Your task to perform on an android device: Do I have any events tomorrow? Image 0: 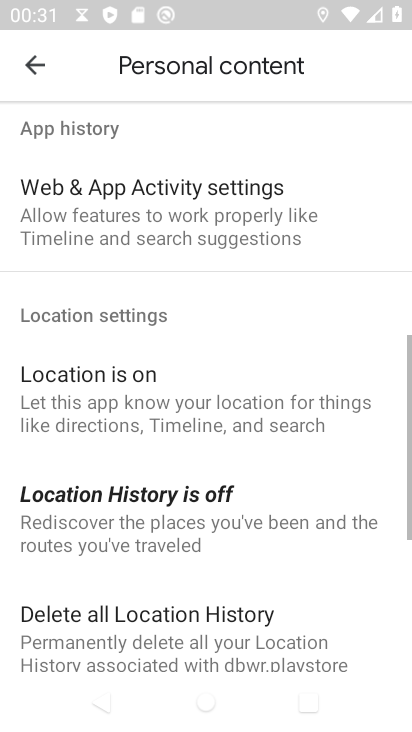
Step 0: press home button
Your task to perform on an android device: Do I have any events tomorrow? Image 1: 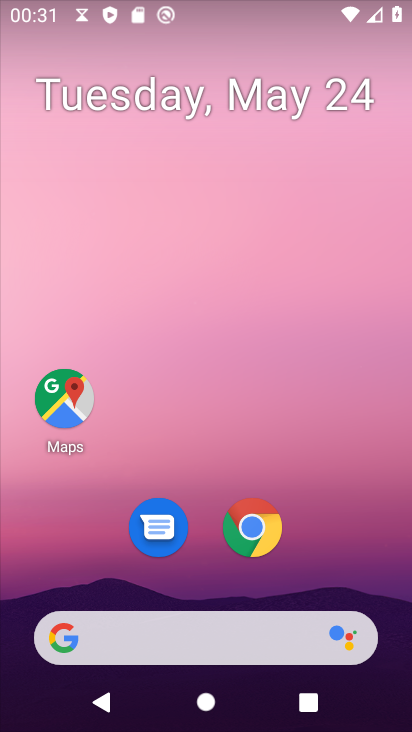
Step 1: drag from (182, 641) to (286, 78)
Your task to perform on an android device: Do I have any events tomorrow? Image 2: 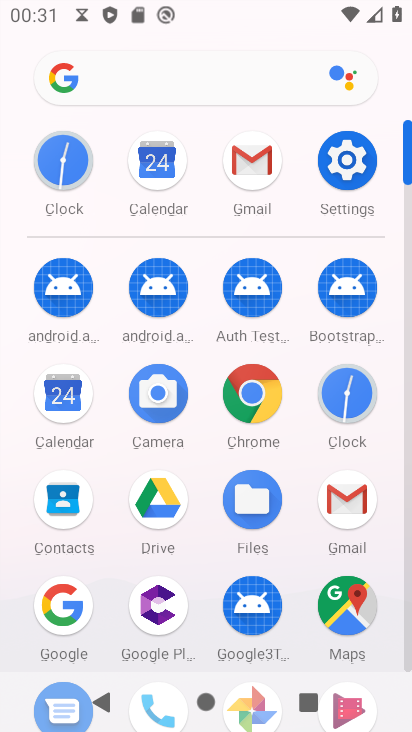
Step 2: click (64, 401)
Your task to perform on an android device: Do I have any events tomorrow? Image 3: 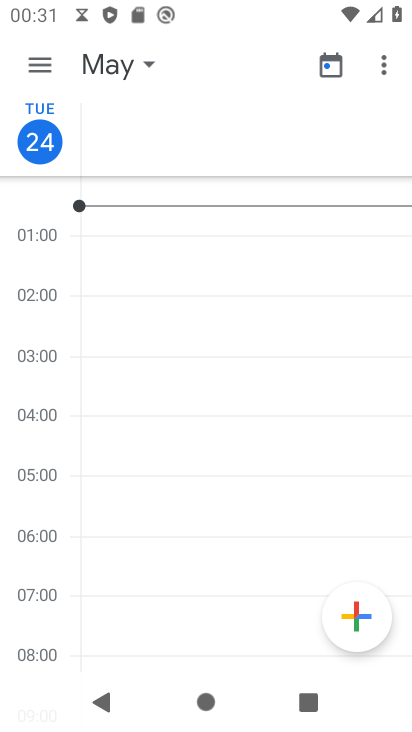
Step 3: click (113, 62)
Your task to perform on an android device: Do I have any events tomorrow? Image 4: 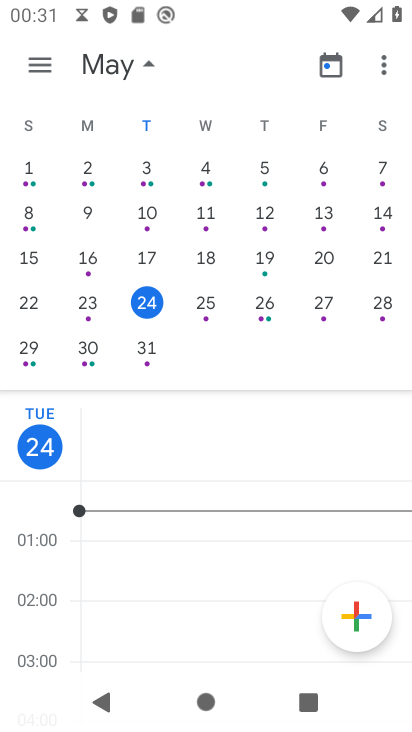
Step 4: click (207, 302)
Your task to perform on an android device: Do I have any events tomorrow? Image 5: 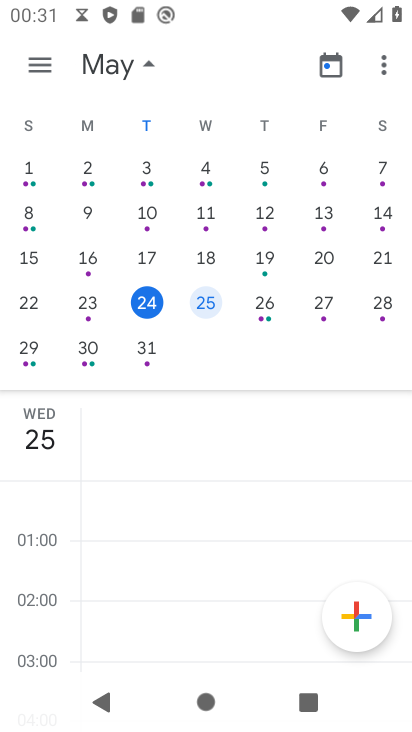
Step 5: click (36, 65)
Your task to perform on an android device: Do I have any events tomorrow? Image 6: 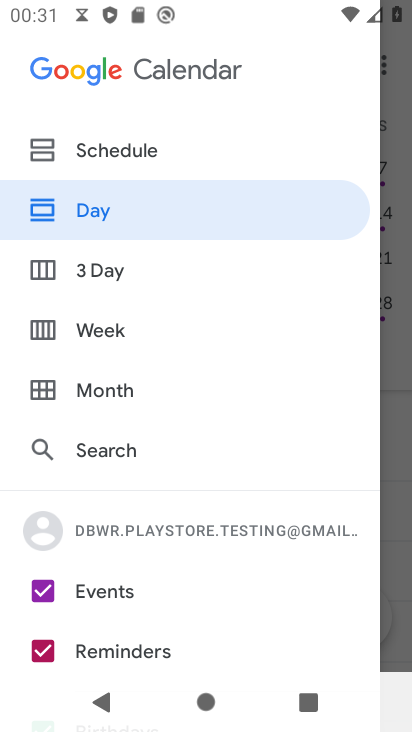
Step 6: click (123, 156)
Your task to perform on an android device: Do I have any events tomorrow? Image 7: 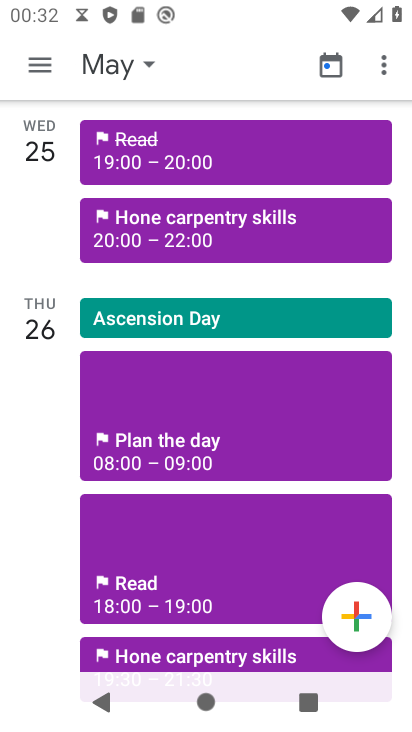
Step 7: click (183, 227)
Your task to perform on an android device: Do I have any events tomorrow? Image 8: 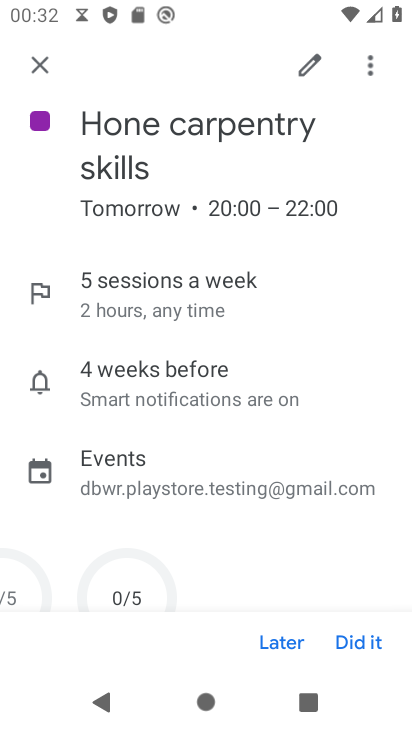
Step 8: task complete